Your task to perform on an android device: manage bookmarks in the chrome app Image 0: 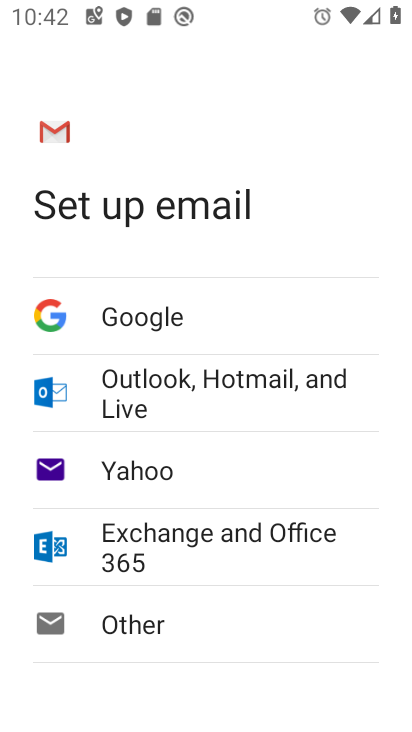
Step 0: press home button
Your task to perform on an android device: manage bookmarks in the chrome app Image 1: 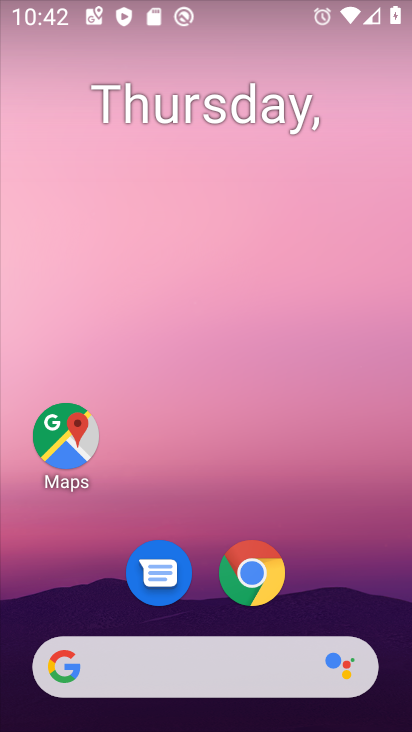
Step 1: click (261, 575)
Your task to perform on an android device: manage bookmarks in the chrome app Image 2: 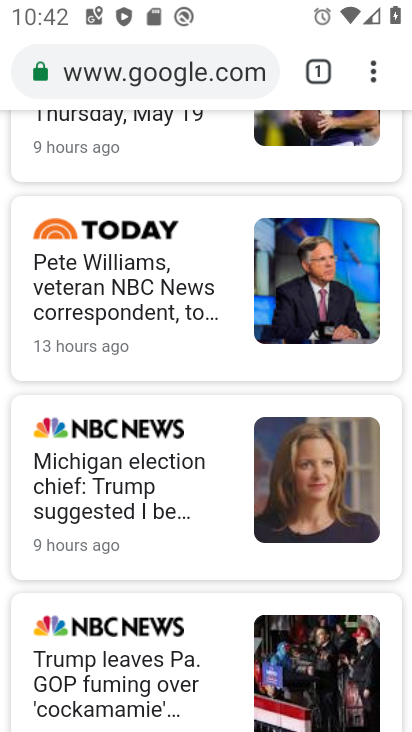
Step 2: drag from (375, 72) to (244, 285)
Your task to perform on an android device: manage bookmarks in the chrome app Image 3: 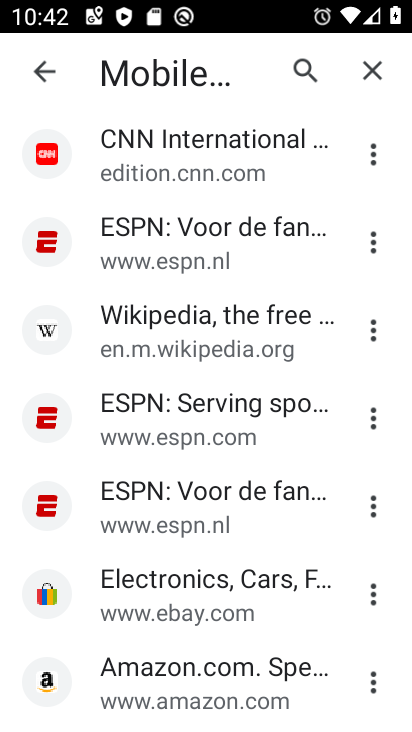
Step 3: click (373, 502)
Your task to perform on an android device: manage bookmarks in the chrome app Image 4: 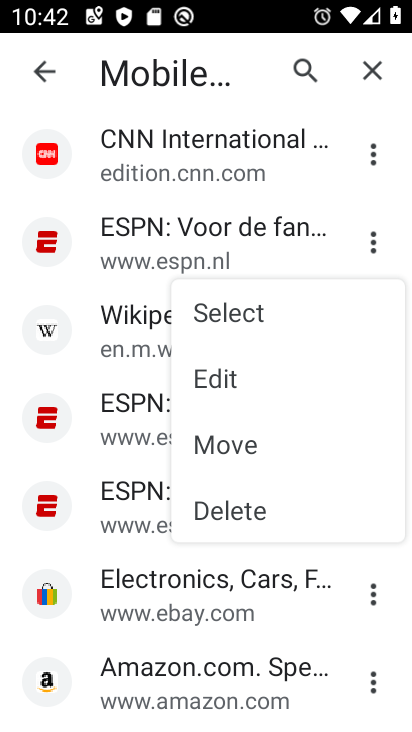
Step 4: click (241, 503)
Your task to perform on an android device: manage bookmarks in the chrome app Image 5: 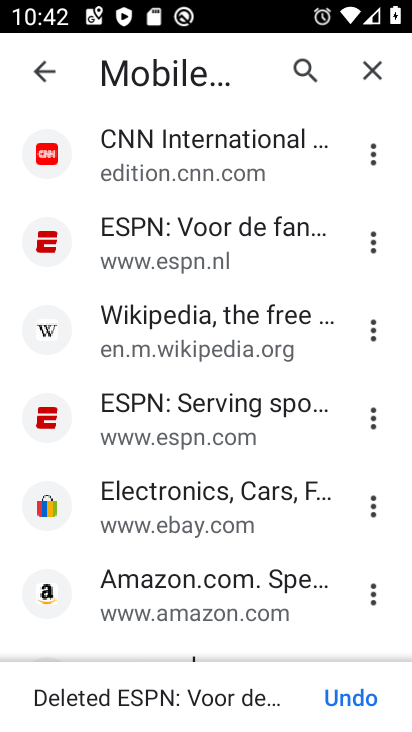
Step 5: task complete